Your task to perform on an android device: change timer sound Image 0: 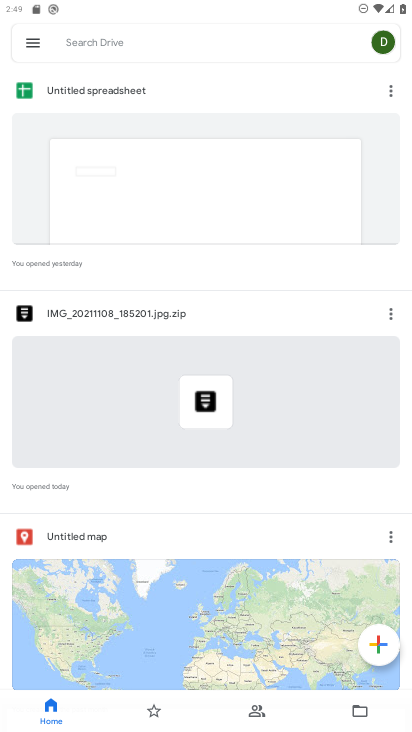
Step 0: press home button
Your task to perform on an android device: change timer sound Image 1: 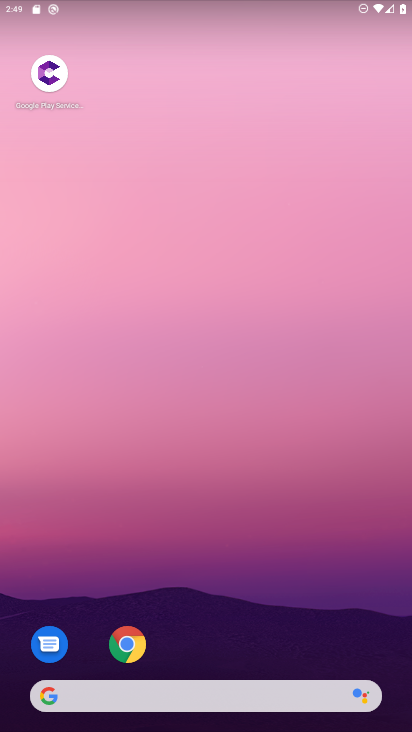
Step 1: drag from (239, 621) to (235, 4)
Your task to perform on an android device: change timer sound Image 2: 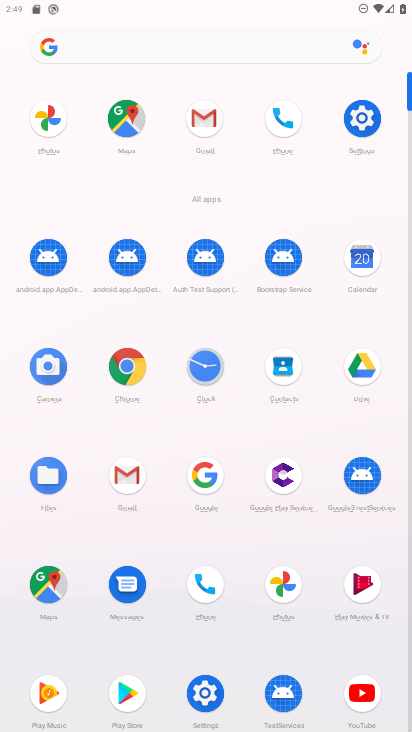
Step 2: click (207, 367)
Your task to perform on an android device: change timer sound Image 3: 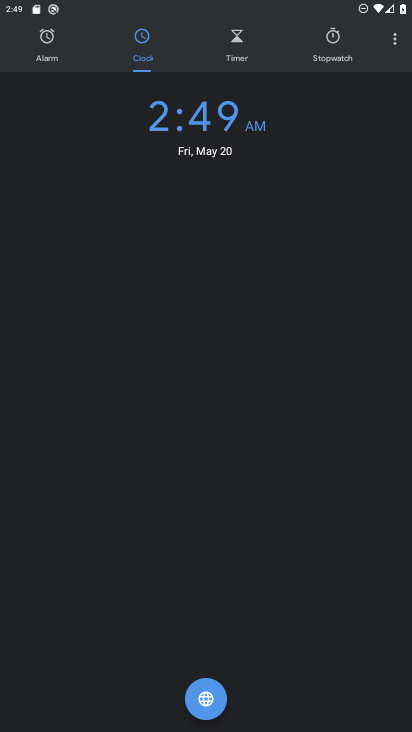
Step 3: click (391, 42)
Your task to perform on an android device: change timer sound Image 4: 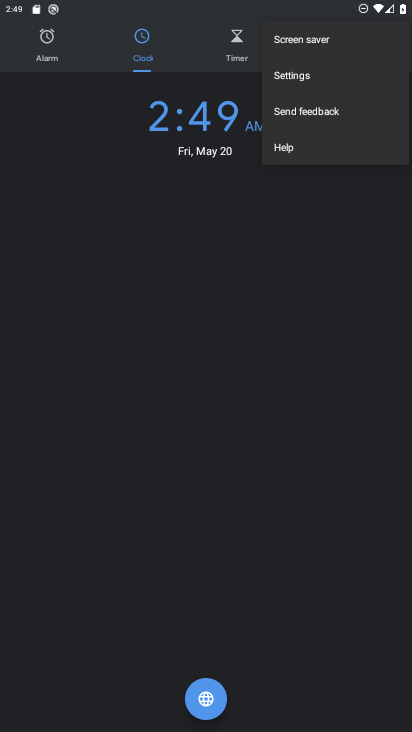
Step 4: click (307, 76)
Your task to perform on an android device: change timer sound Image 5: 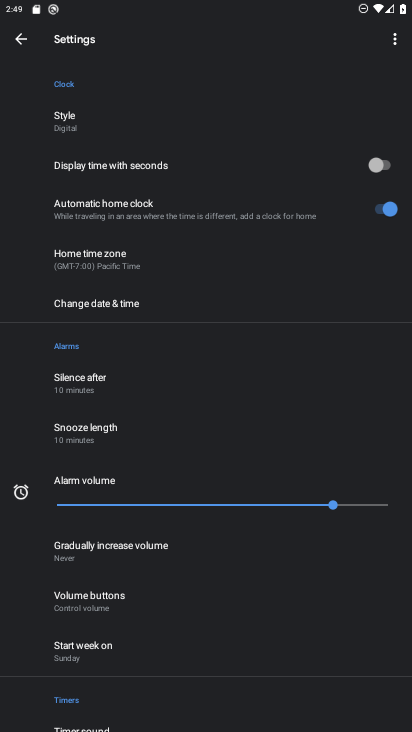
Step 5: drag from (188, 562) to (218, 462)
Your task to perform on an android device: change timer sound Image 6: 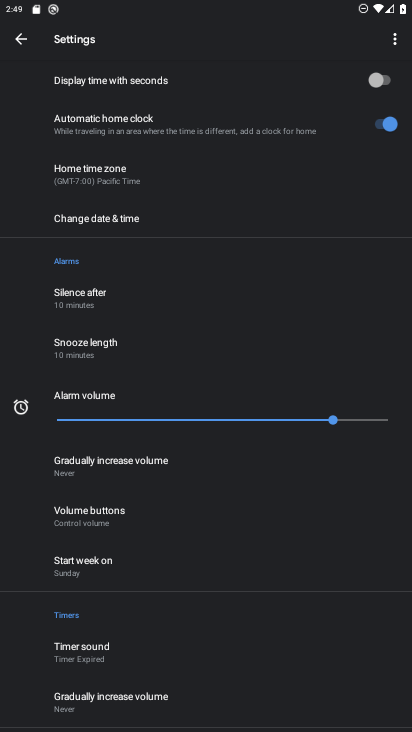
Step 6: drag from (179, 632) to (246, 526)
Your task to perform on an android device: change timer sound Image 7: 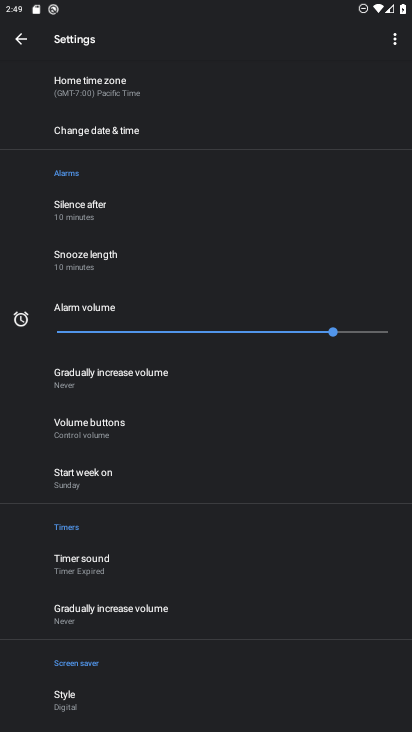
Step 7: click (102, 560)
Your task to perform on an android device: change timer sound Image 8: 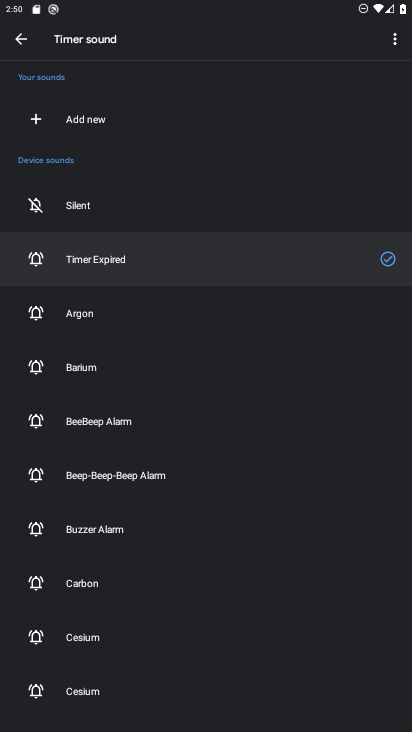
Step 8: click (72, 323)
Your task to perform on an android device: change timer sound Image 9: 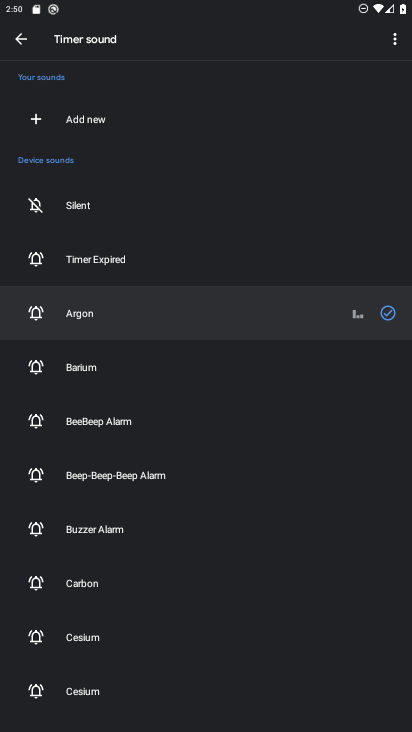
Step 9: task complete